Your task to perform on an android device: Open ESPN.com Image 0: 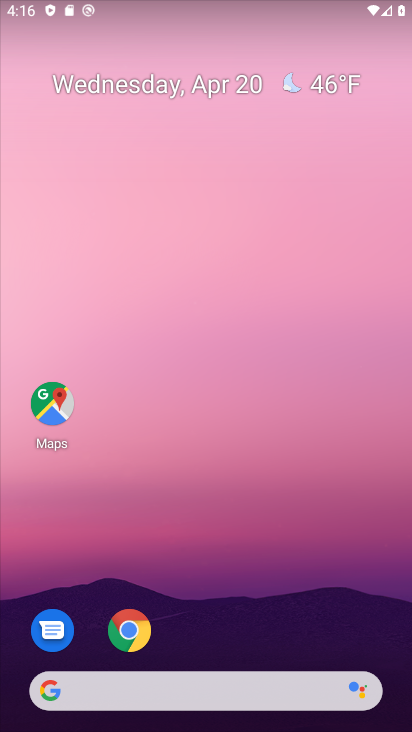
Step 0: click (128, 631)
Your task to perform on an android device: Open ESPN.com Image 1: 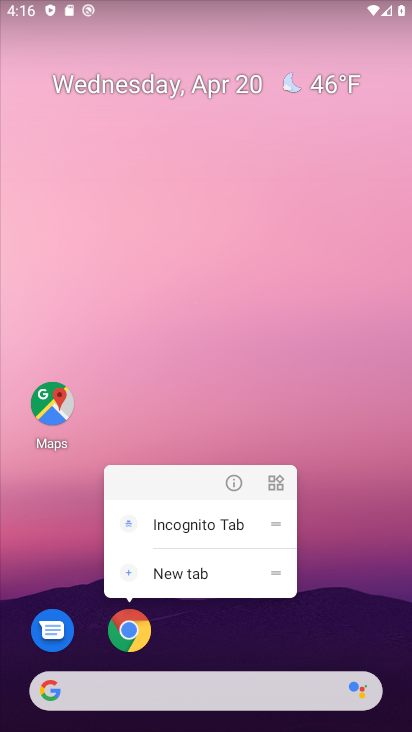
Step 1: click (134, 631)
Your task to perform on an android device: Open ESPN.com Image 2: 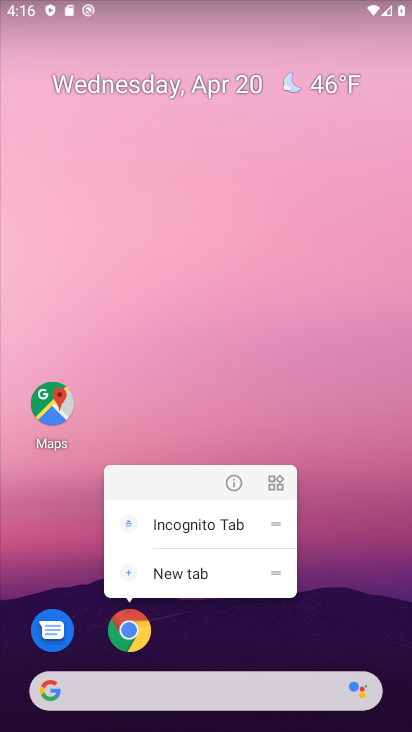
Step 2: drag from (208, 679) to (233, 378)
Your task to perform on an android device: Open ESPN.com Image 3: 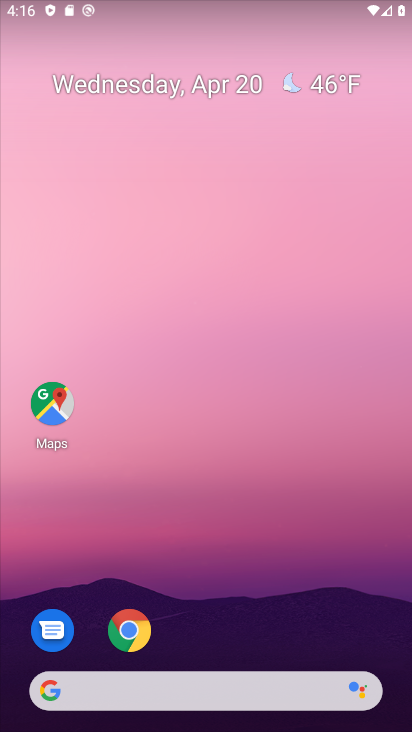
Step 3: drag from (176, 279) to (176, 244)
Your task to perform on an android device: Open ESPN.com Image 4: 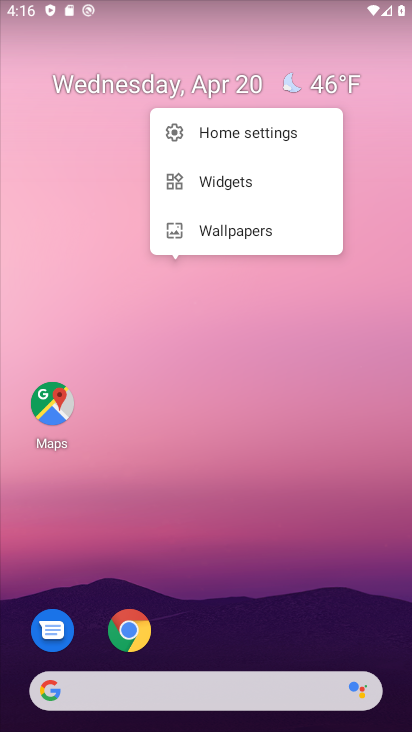
Step 4: click (127, 638)
Your task to perform on an android device: Open ESPN.com Image 5: 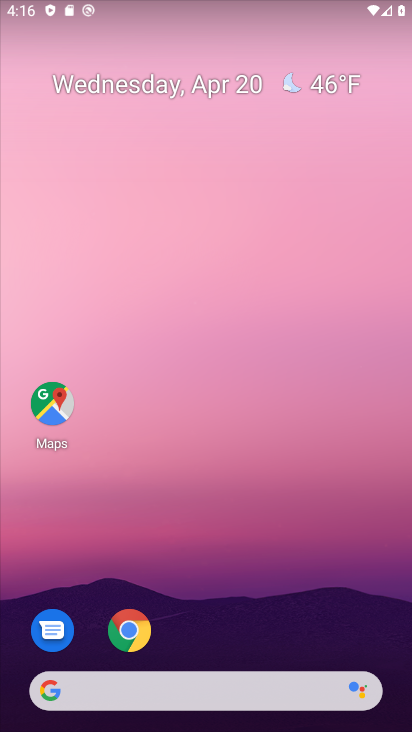
Step 5: click (127, 628)
Your task to perform on an android device: Open ESPN.com Image 6: 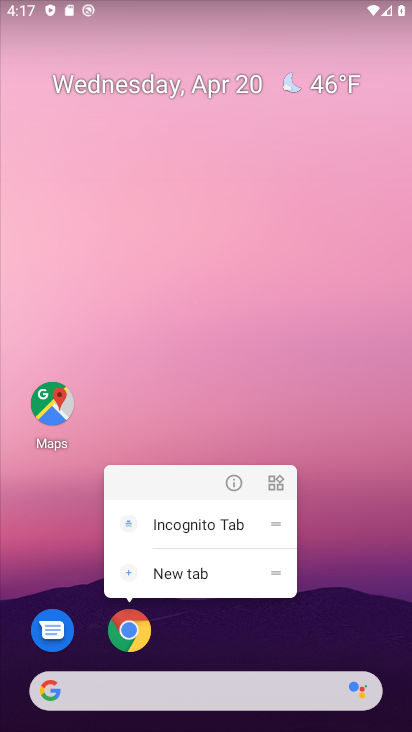
Step 6: click (216, 658)
Your task to perform on an android device: Open ESPN.com Image 7: 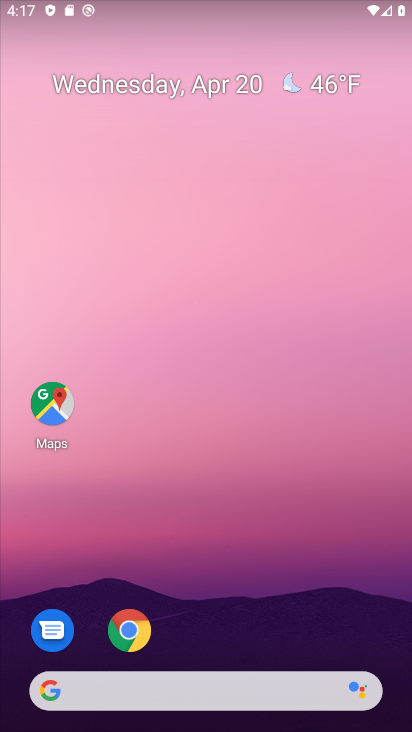
Step 7: drag from (218, 672) to (259, 264)
Your task to perform on an android device: Open ESPN.com Image 8: 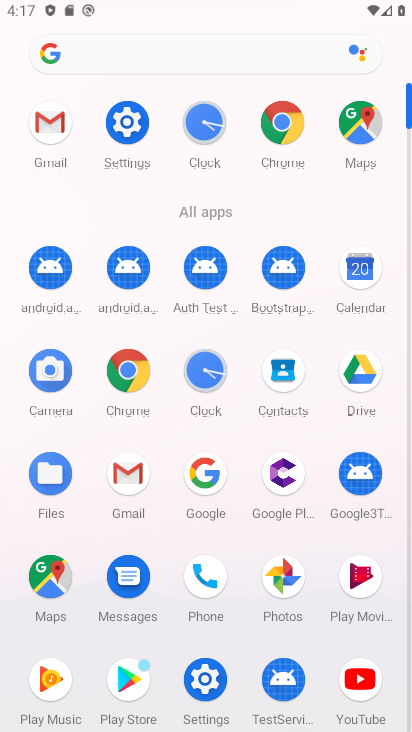
Step 8: click (129, 374)
Your task to perform on an android device: Open ESPN.com Image 9: 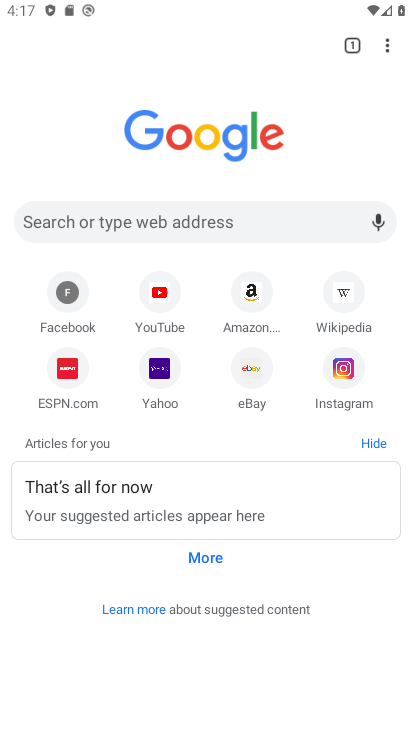
Step 9: click (68, 375)
Your task to perform on an android device: Open ESPN.com Image 10: 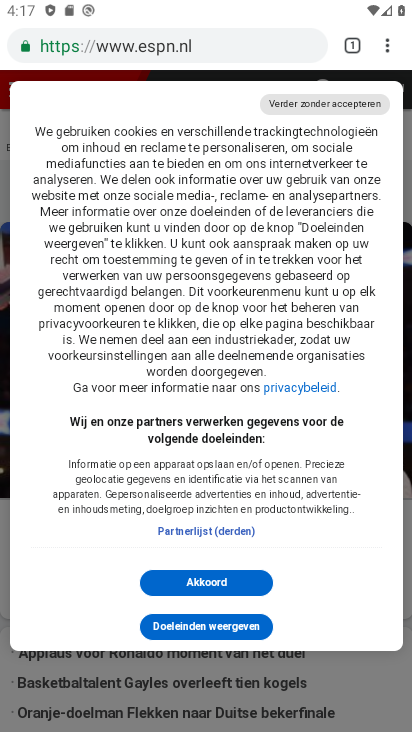
Step 10: task complete